Your task to perform on an android device: Search for "sony triple a" on bestbuy.com, select the first entry, add it to the cart, then select checkout. Image 0: 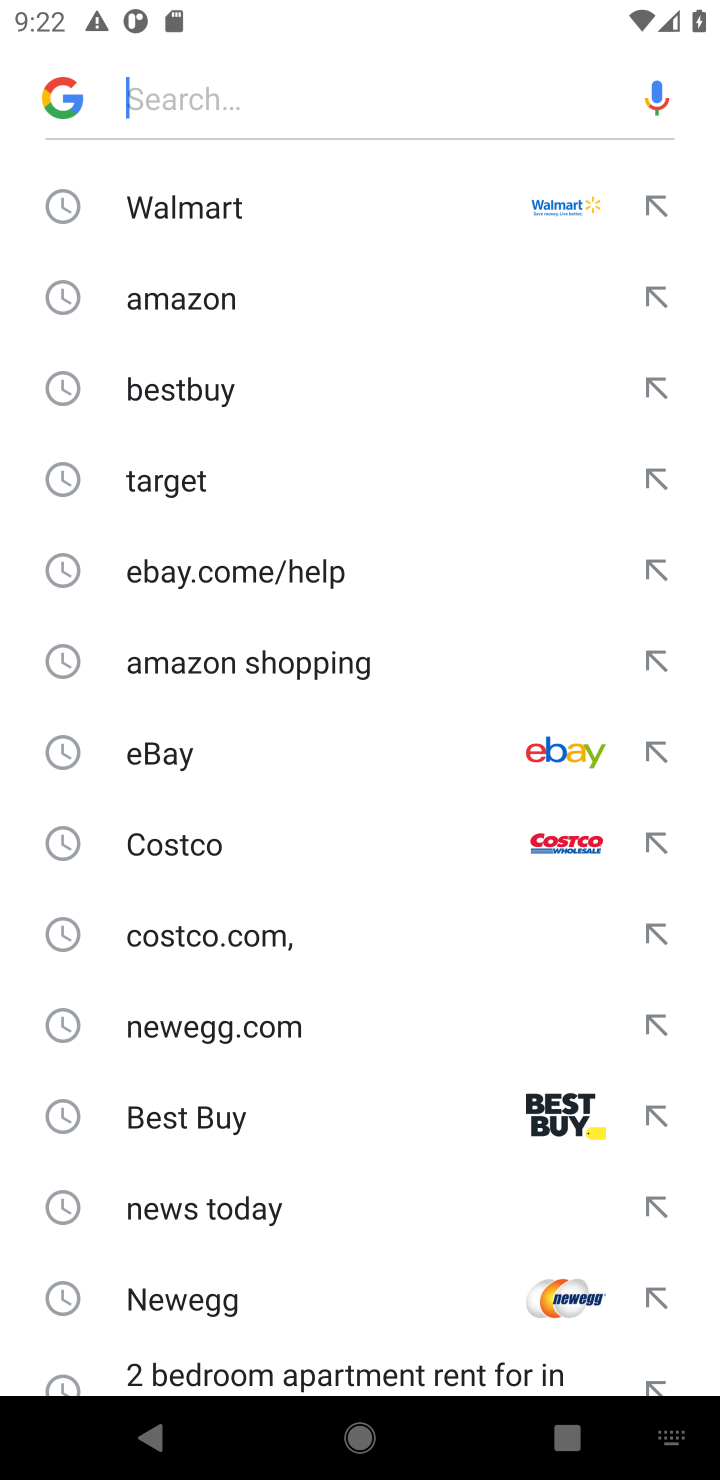
Step 0: click (243, 1154)
Your task to perform on an android device: Search for "sony triple a" on bestbuy.com, select the first entry, add it to the cart, then select checkout. Image 1: 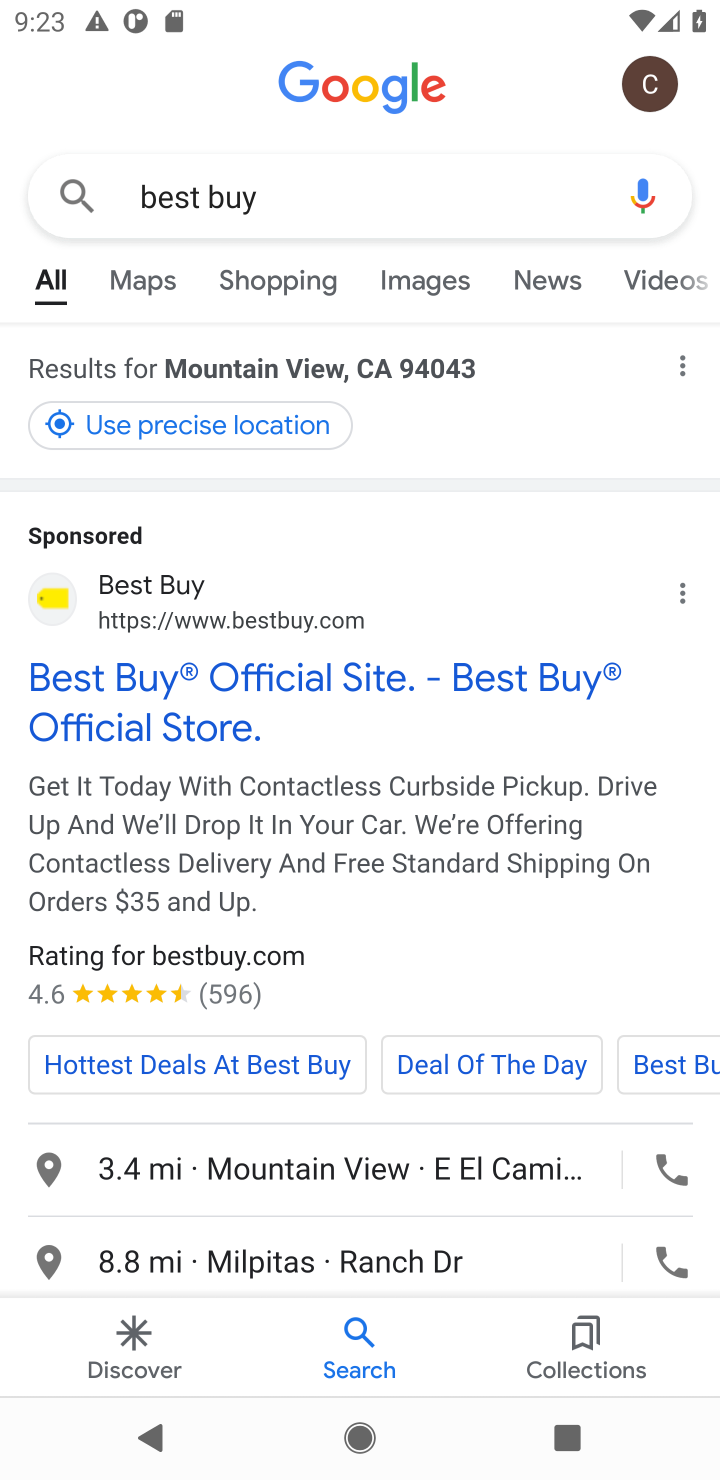
Step 1: click (103, 744)
Your task to perform on an android device: Search for "sony triple a" on bestbuy.com, select the first entry, add it to the cart, then select checkout. Image 2: 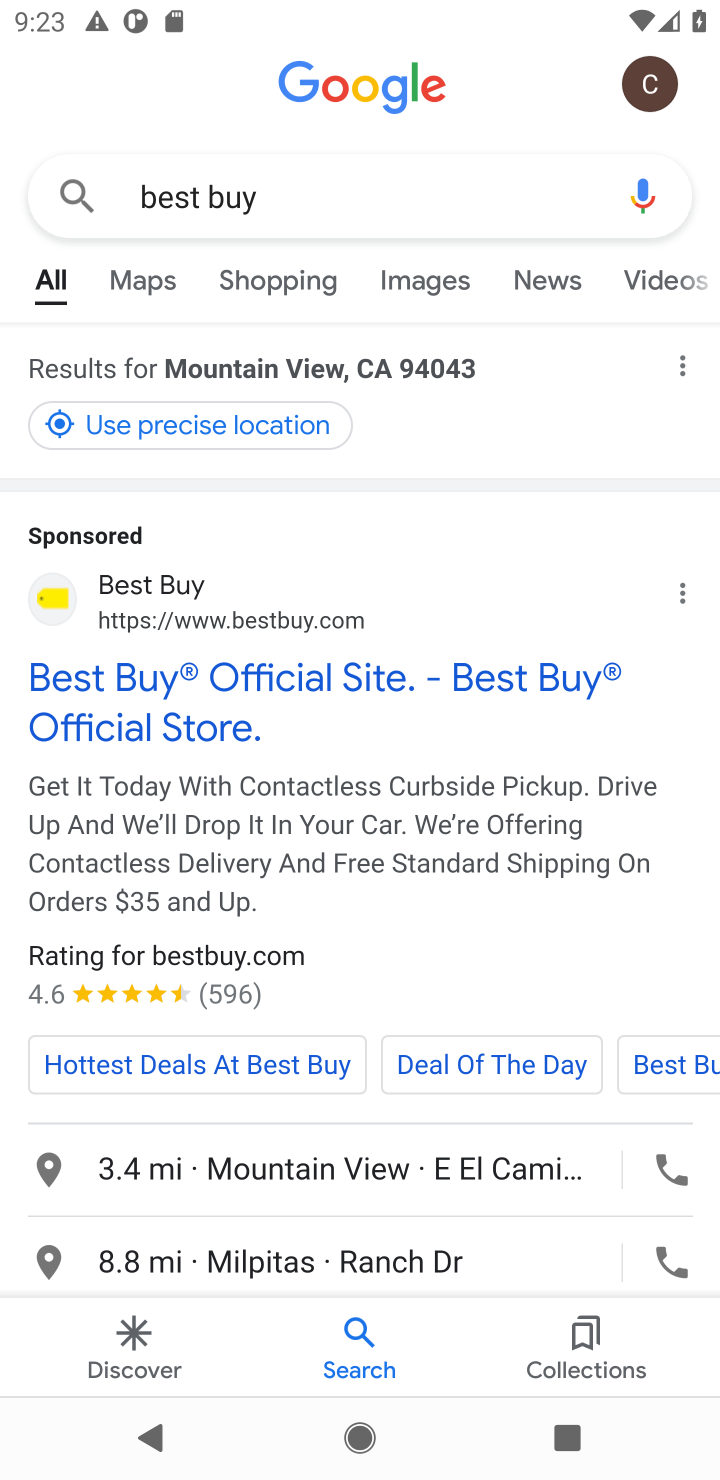
Step 2: task complete